Your task to perform on an android device: turn on improve location accuracy Image 0: 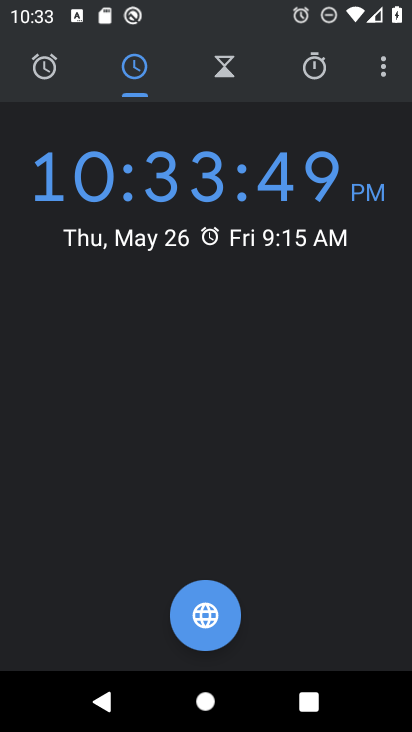
Step 0: press home button
Your task to perform on an android device: turn on improve location accuracy Image 1: 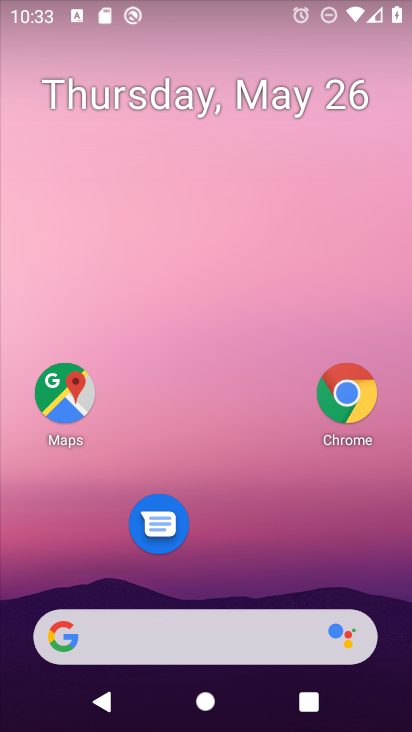
Step 1: drag from (289, 547) to (270, 67)
Your task to perform on an android device: turn on improve location accuracy Image 2: 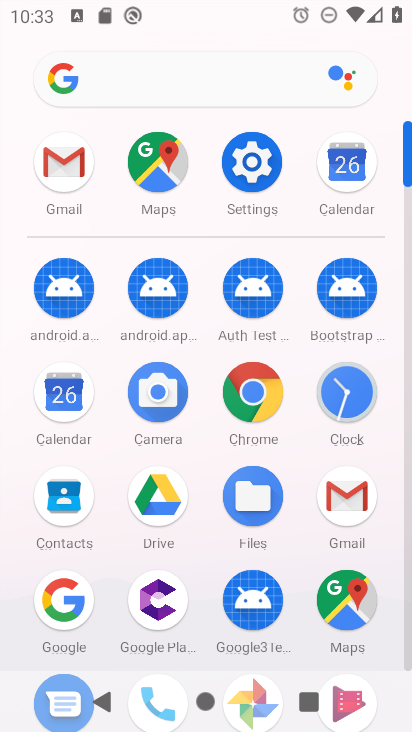
Step 2: click (265, 163)
Your task to perform on an android device: turn on improve location accuracy Image 3: 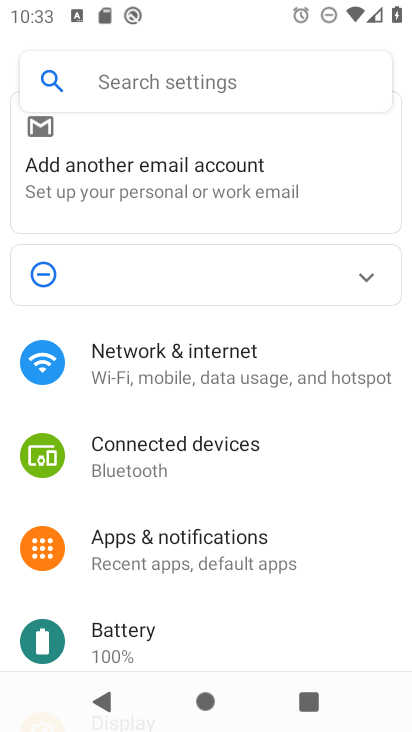
Step 3: drag from (191, 566) to (240, 108)
Your task to perform on an android device: turn on improve location accuracy Image 4: 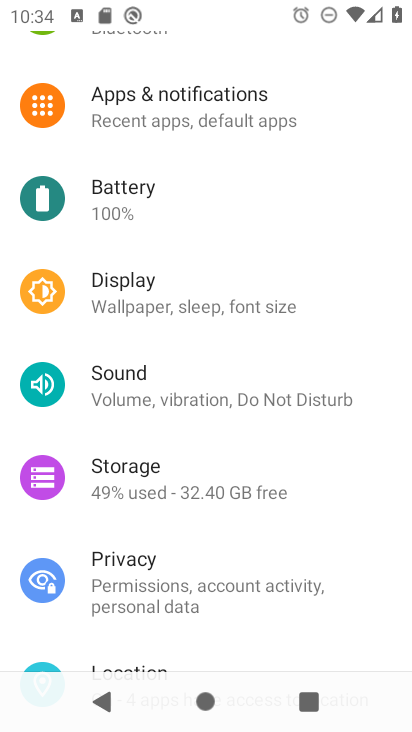
Step 4: drag from (212, 500) to (229, 128)
Your task to perform on an android device: turn on improve location accuracy Image 5: 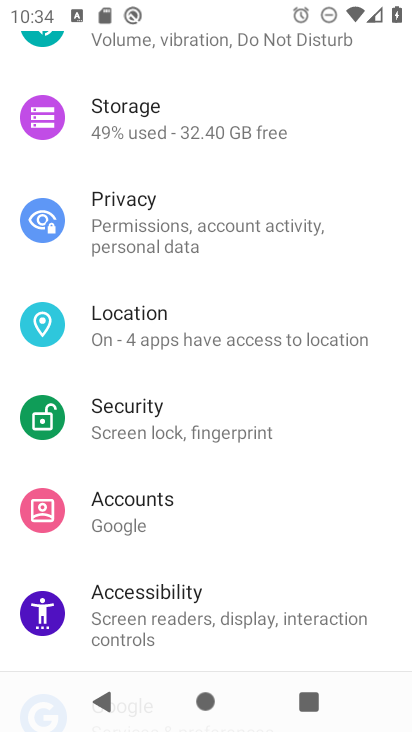
Step 5: click (229, 321)
Your task to perform on an android device: turn on improve location accuracy Image 6: 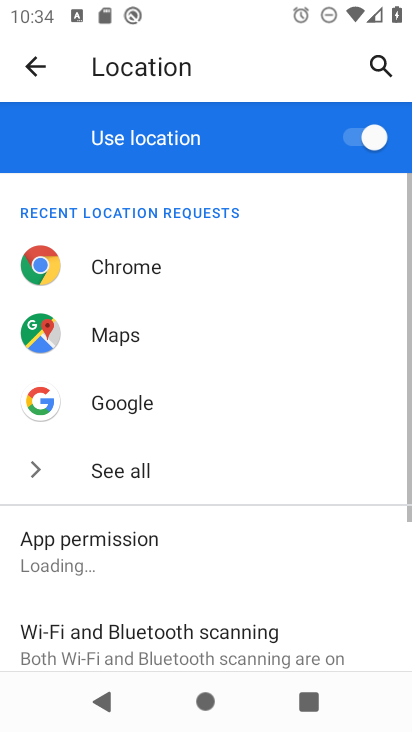
Step 6: drag from (229, 589) to (249, 111)
Your task to perform on an android device: turn on improve location accuracy Image 7: 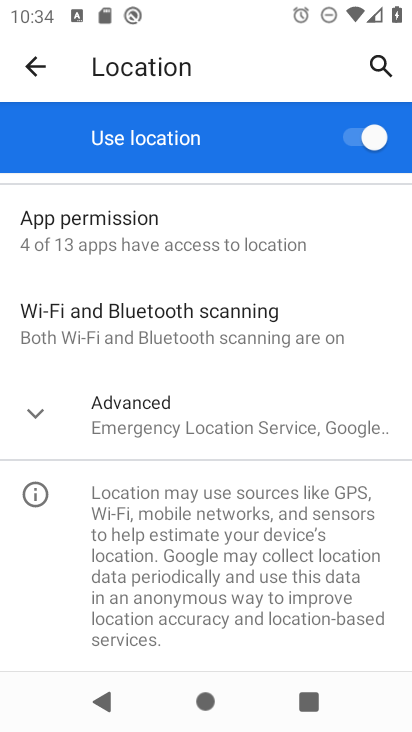
Step 7: click (22, 400)
Your task to perform on an android device: turn on improve location accuracy Image 8: 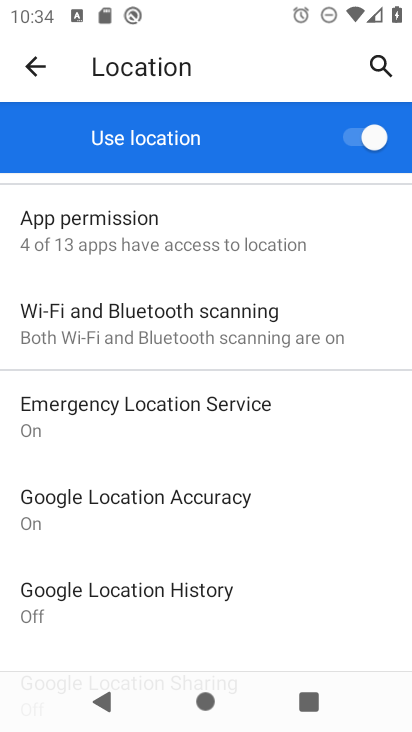
Step 8: click (239, 499)
Your task to perform on an android device: turn on improve location accuracy Image 9: 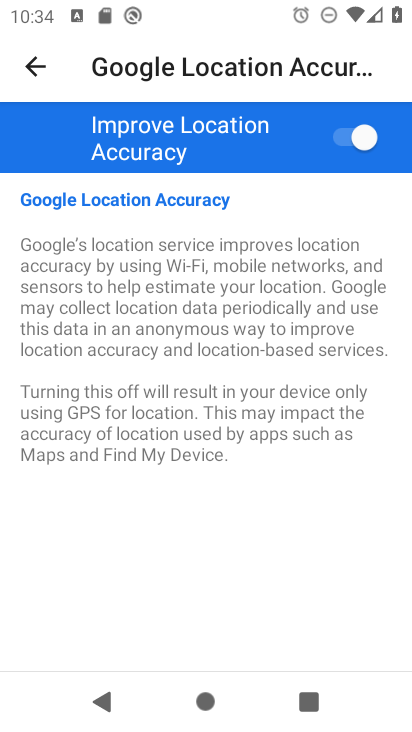
Step 9: task complete